Your task to perform on an android device: Check the weather Image 0: 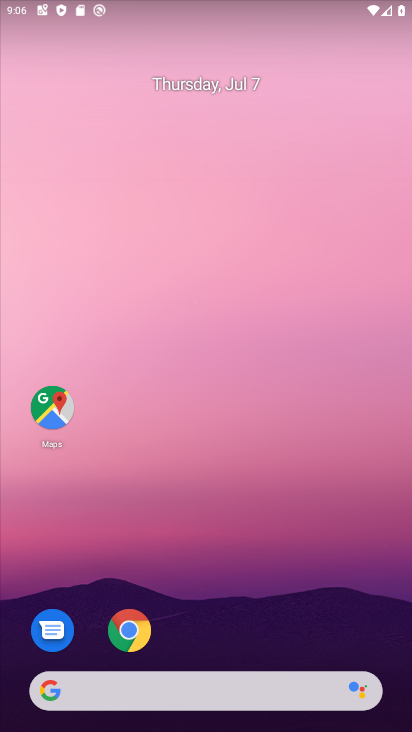
Step 0: drag from (210, 657) to (228, 33)
Your task to perform on an android device: Check the weather Image 1: 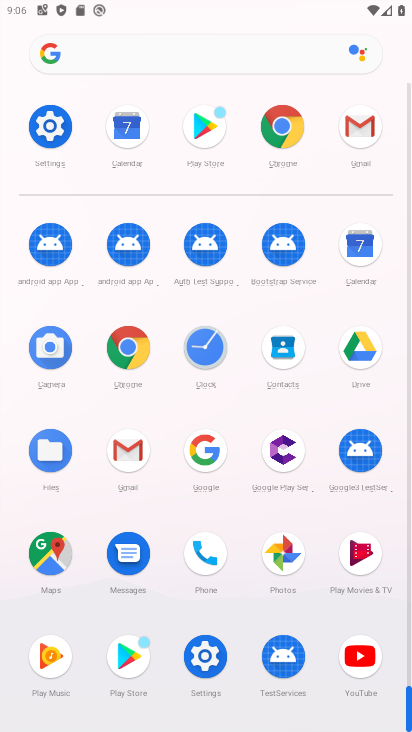
Step 1: click (136, 48)
Your task to perform on an android device: Check the weather Image 2: 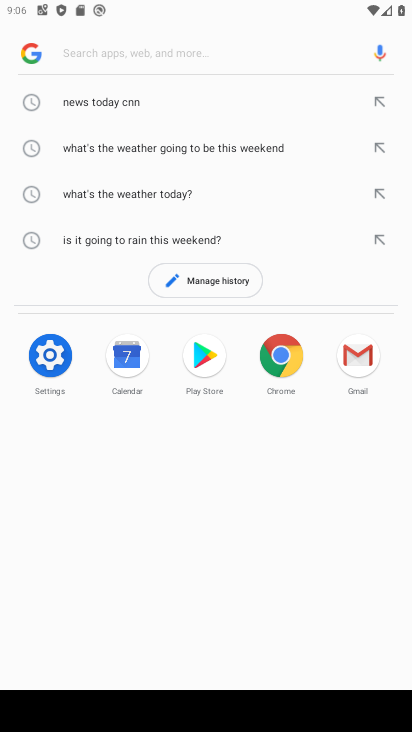
Step 2: type "weather"
Your task to perform on an android device: Check the weather Image 3: 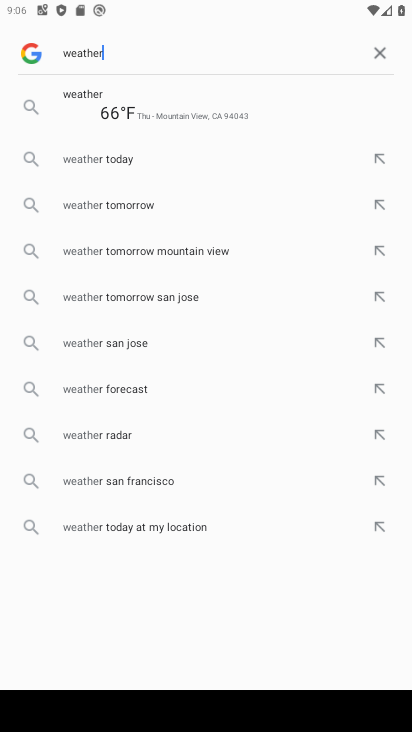
Step 3: type ""
Your task to perform on an android device: Check the weather Image 4: 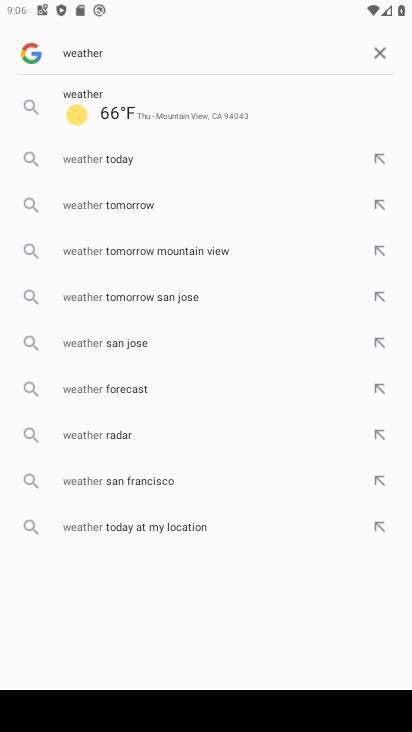
Step 4: click (125, 107)
Your task to perform on an android device: Check the weather Image 5: 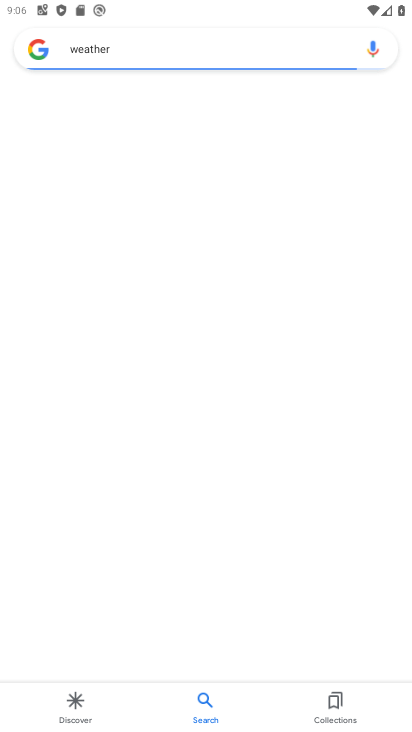
Step 5: task complete